Your task to perform on an android device: Search for 3d printed chess sets on Etsy. Image 0: 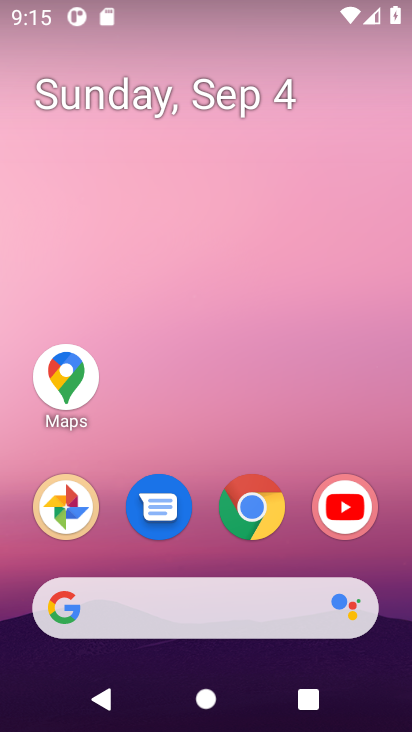
Step 0: click (254, 511)
Your task to perform on an android device: Search for 3d printed chess sets on Etsy. Image 1: 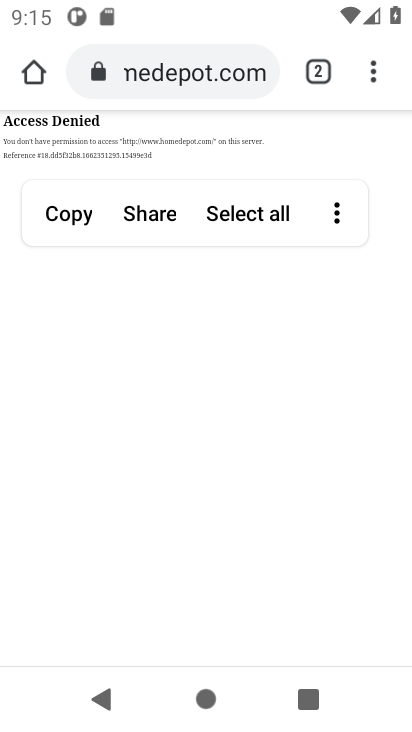
Step 1: click (173, 57)
Your task to perform on an android device: Search for 3d printed chess sets on Etsy. Image 2: 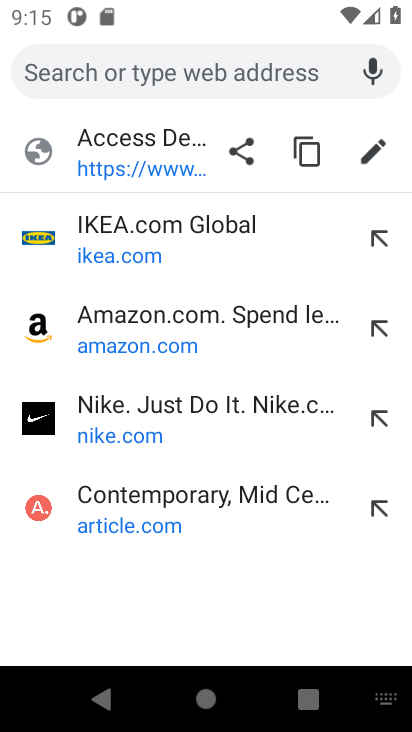
Step 2: type "Etsy"
Your task to perform on an android device: Search for 3d printed chess sets on Etsy. Image 3: 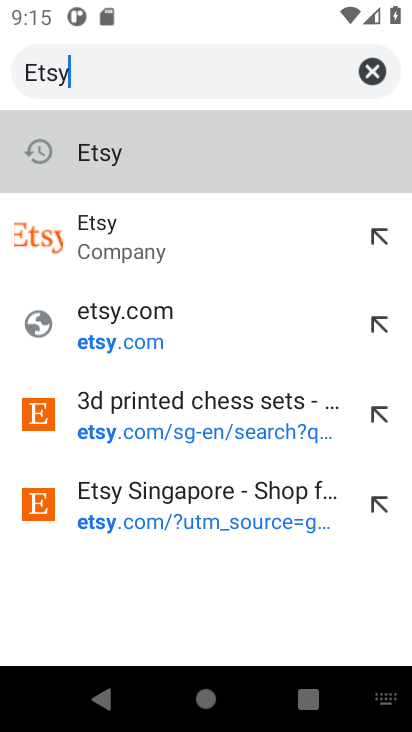
Step 3: click (95, 160)
Your task to perform on an android device: Search for 3d printed chess sets on Etsy. Image 4: 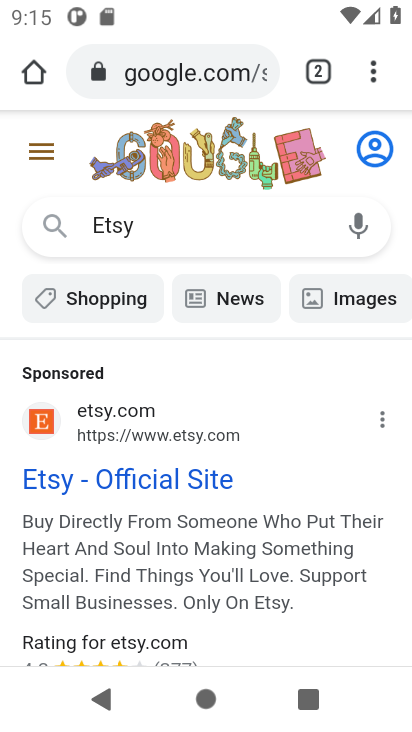
Step 4: click (84, 476)
Your task to perform on an android device: Search for 3d printed chess sets on Etsy. Image 5: 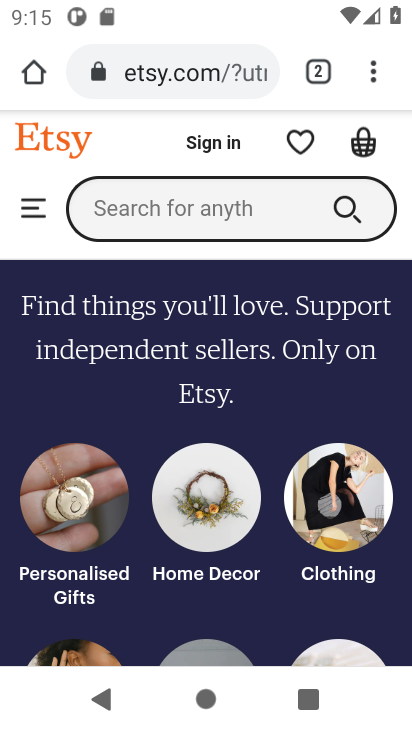
Step 5: click (107, 201)
Your task to perform on an android device: Search for 3d printed chess sets on Etsy. Image 6: 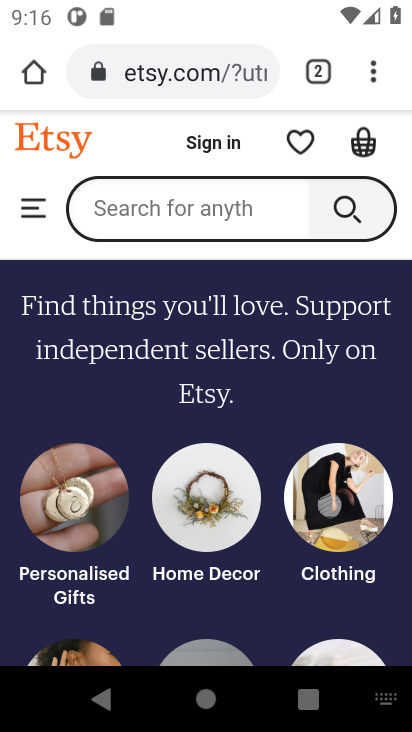
Step 6: type " 3d printed chess sets"
Your task to perform on an android device: Search for 3d printed chess sets on Etsy. Image 7: 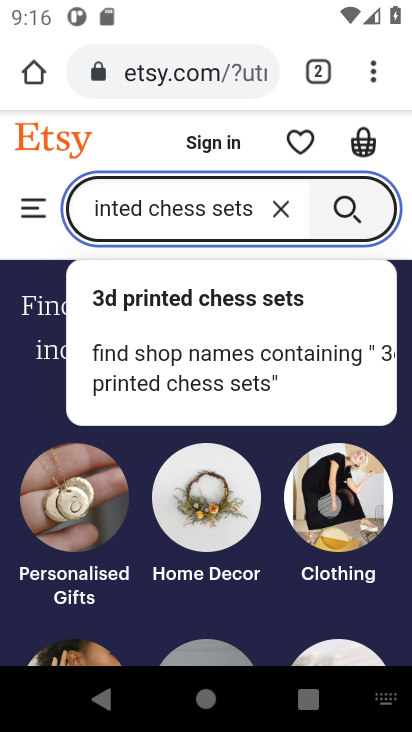
Step 7: click (335, 209)
Your task to perform on an android device: Search for 3d printed chess sets on Etsy. Image 8: 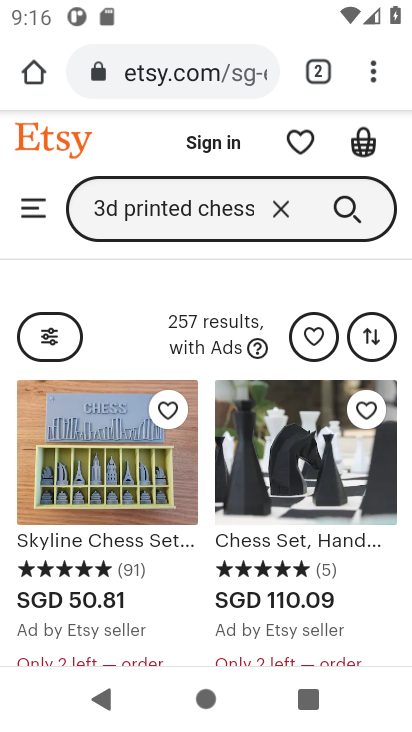
Step 8: task complete